Your task to perform on an android device: check android version Image 0: 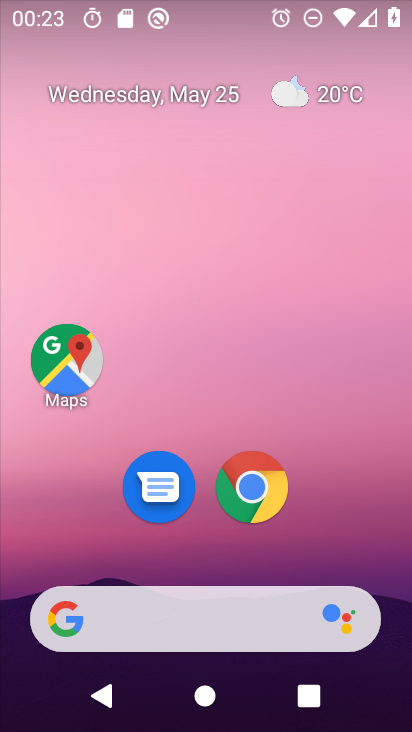
Step 0: drag from (363, 582) to (388, 11)
Your task to perform on an android device: check android version Image 1: 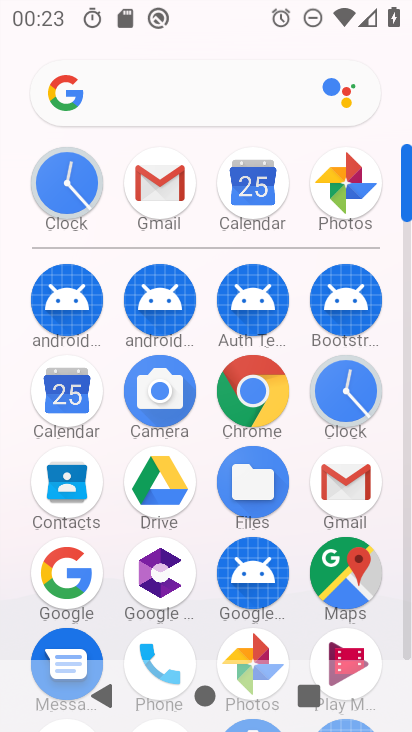
Step 1: click (404, 611)
Your task to perform on an android device: check android version Image 2: 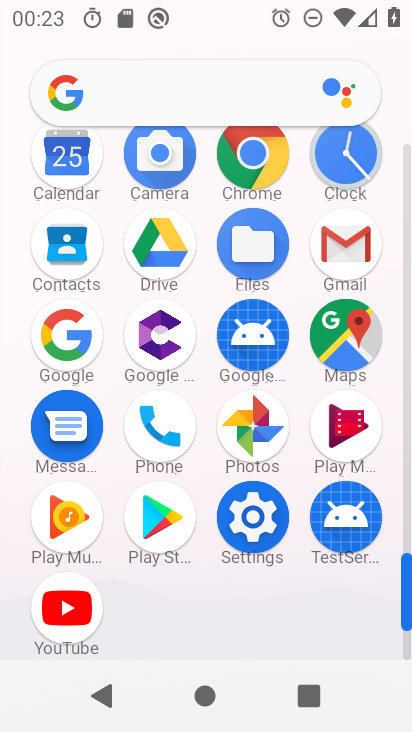
Step 2: click (257, 522)
Your task to perform on an android device: check android version Image 3: 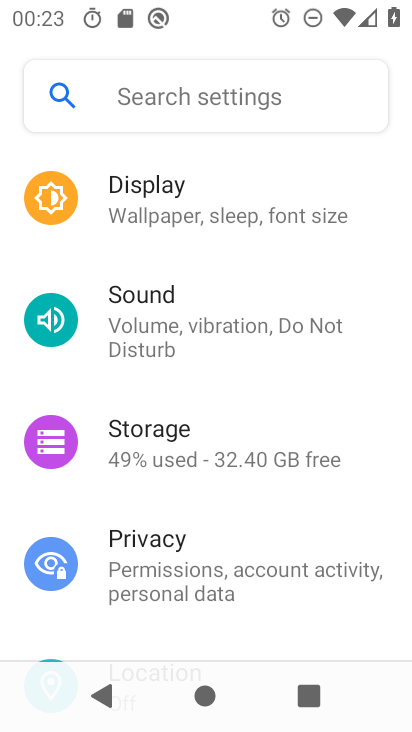
Step 3: drag from (278, 569) to (266, 30)
Your task to perform on an android device: check android version Image 4: 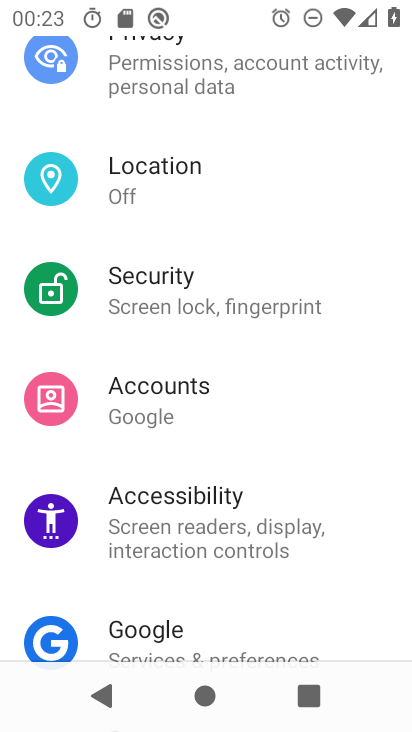
Step 4: drag from (263, 520) to (233, 102)
Your task to perform on an android device: check android version Image 5: 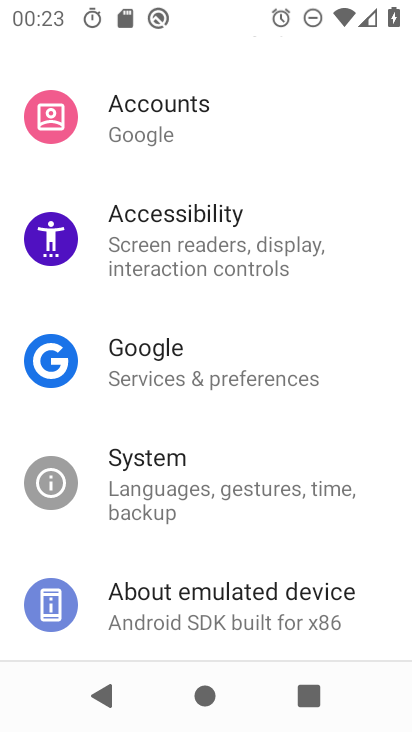
Step 5: click (192, 603)
Your task to perform on an android device: check android version Image 6: 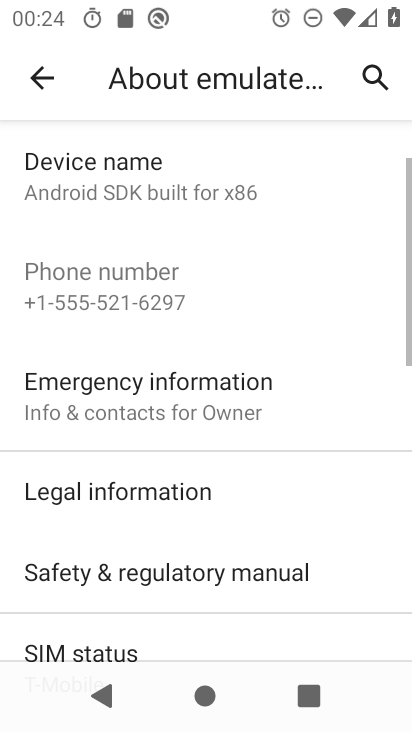
Step 6: drag from (192, 603) to (213, 145)
Your task to perform on an android device: check android version Image 7: 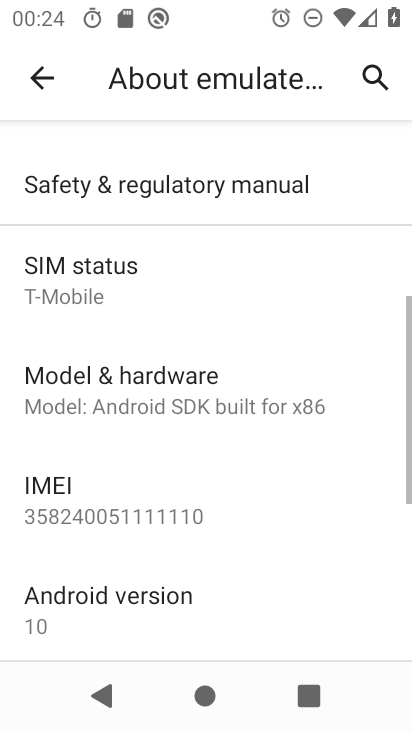
Step 7: drag from (176, 519) to (184, 227)
Your task to perform on an android device: check android version Image 8: 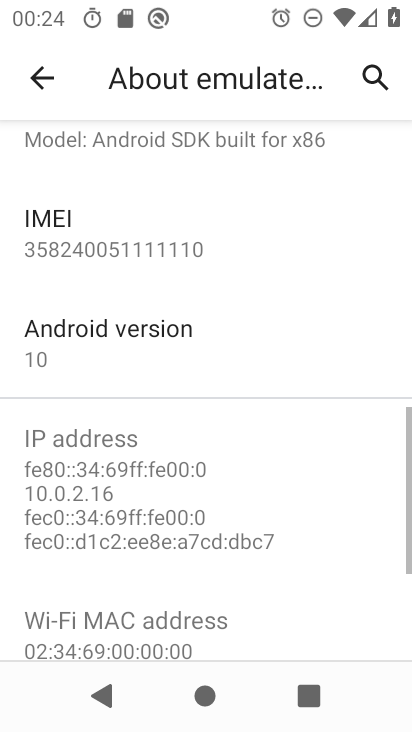
Step 8: click (95, 343)
Your task to perform on an android device: check android version Image 9: 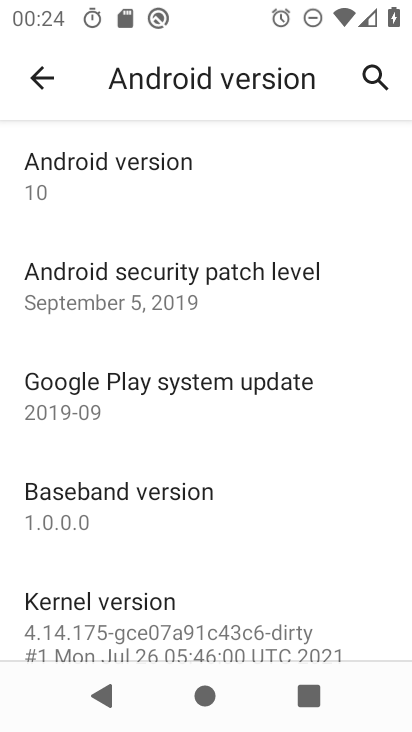
Step 9: task complete